Your task to perform on an android device: What's the weather going to be this weekend? Image 0: 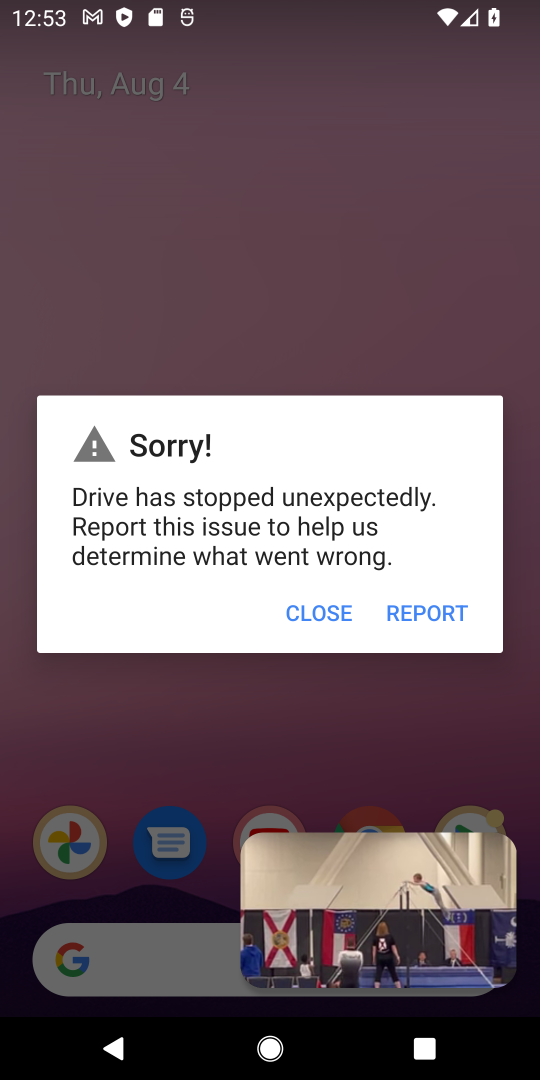
Step 0: press home button
Your task to perform on an android device: What's the weather going to be this weekend? Image 1: 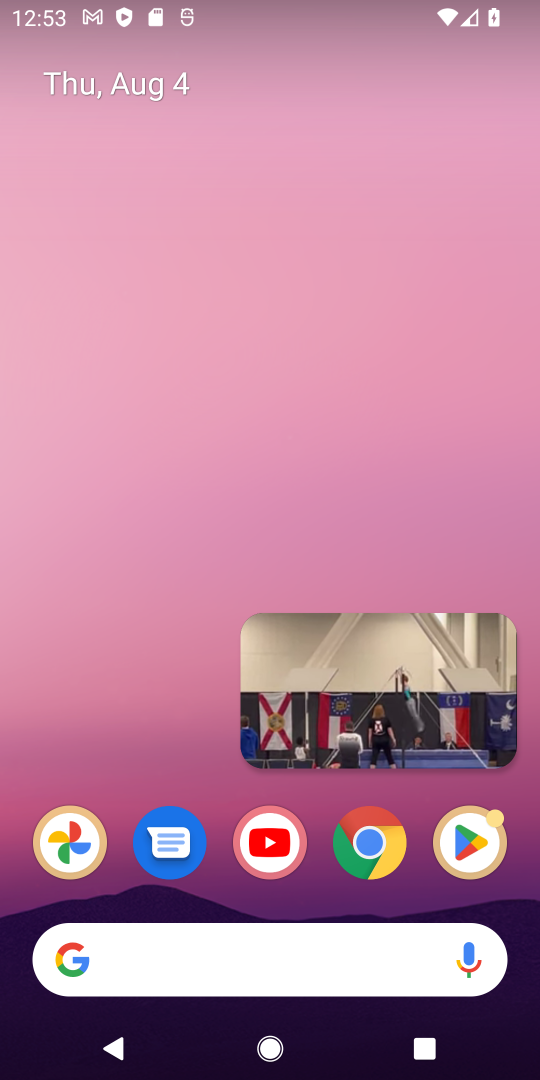
Step 1: drag from (146, 735) to (65, 108)
Your task to perform on an android device: What's the weather going to be this weekend? Image 2: 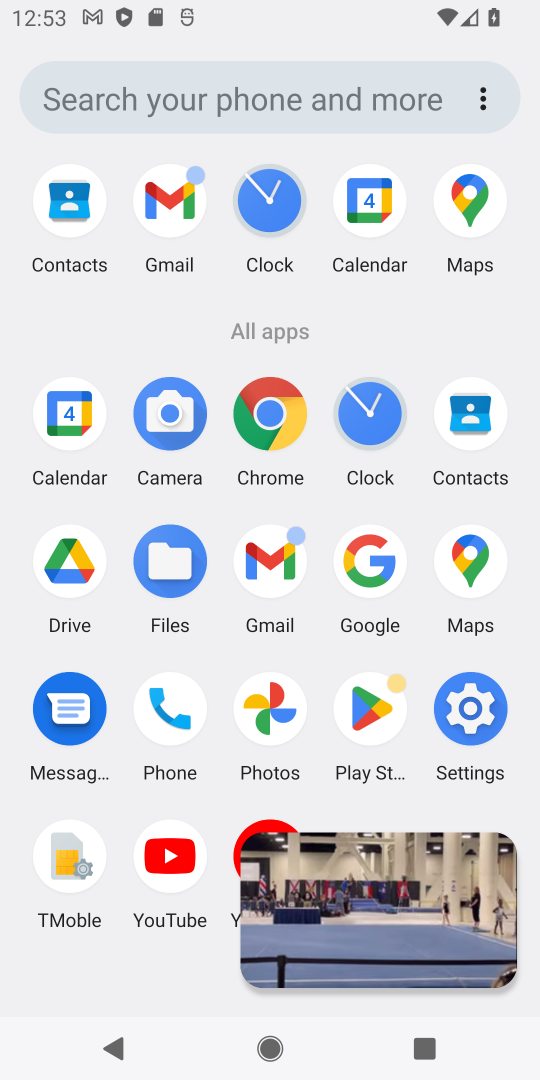
Step 2: click (373, 568)
Your task to perform on an android device: What's the weather going to be this weekend? Image 3: 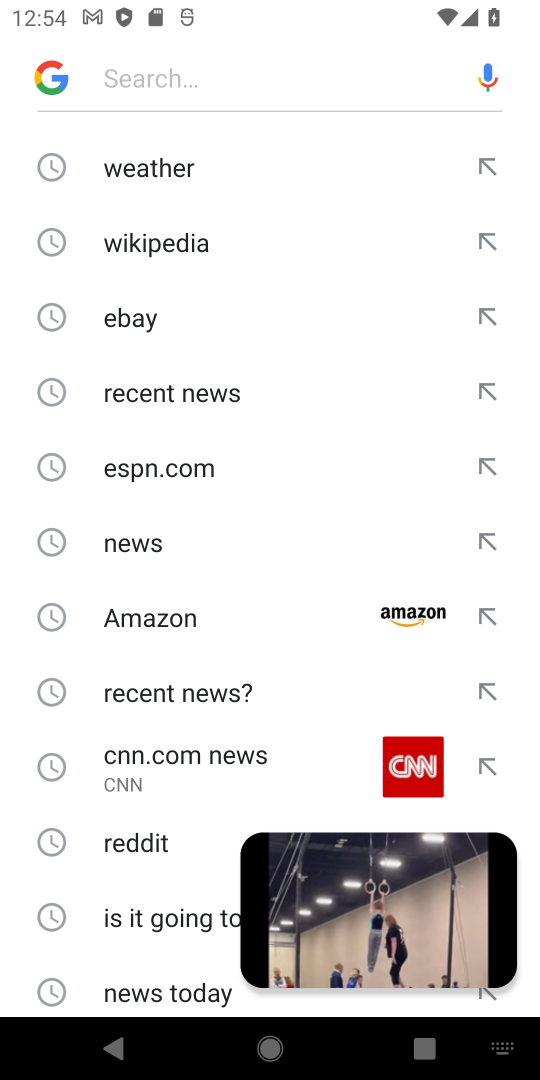
Step 3: type "what's the weather going to be this weekend"
Your task to perform on an android device: What's the weather going to be this weekend? Image 4: 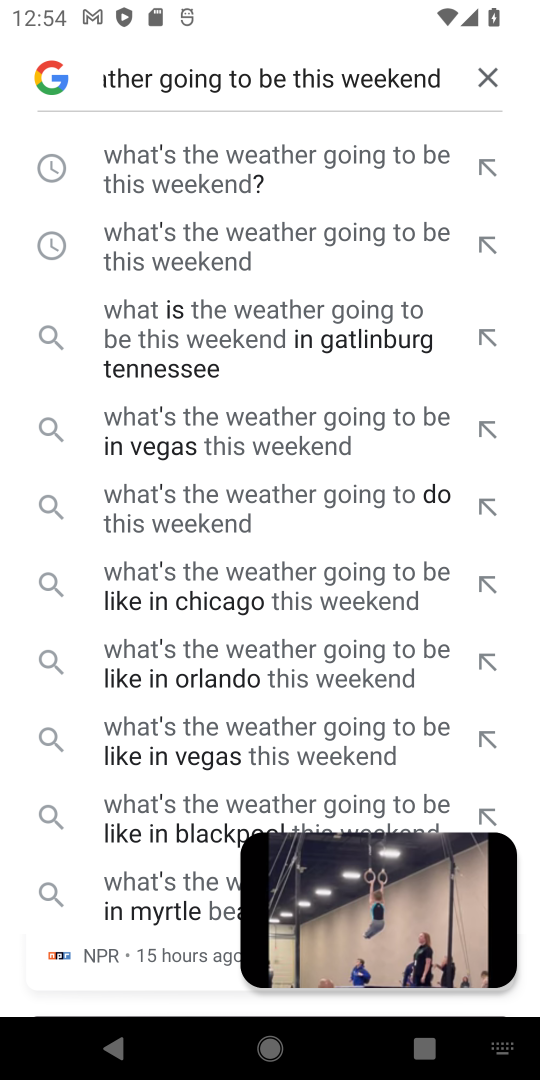
Step 4: click (267, 164)
Your task to perform on an android device: What's the weather going to be this weekend? Image 5: 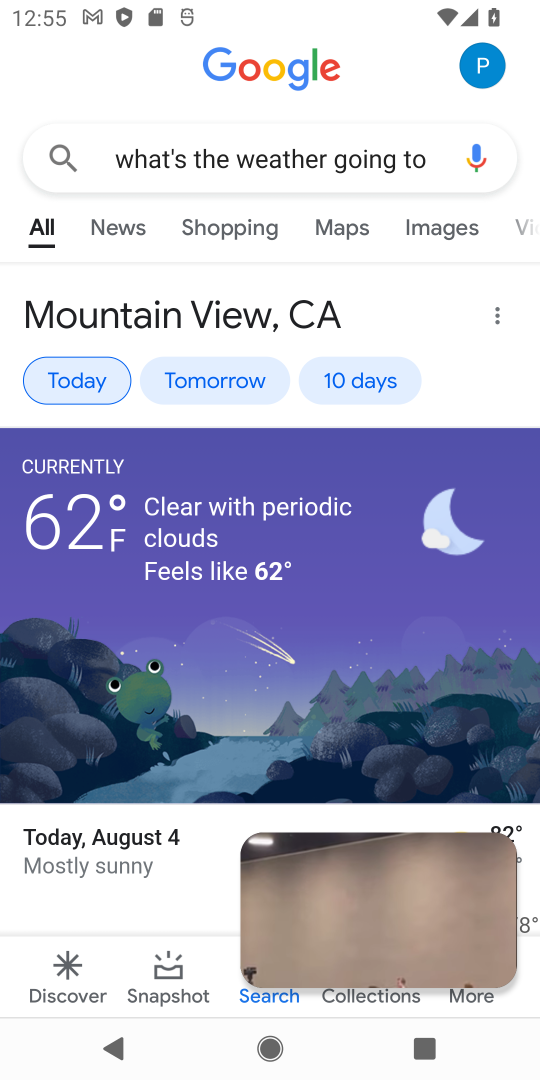
Step 5: click (375, 386)
Your task to perform on an android device: What's the weather going to be this weekend? Image 6: 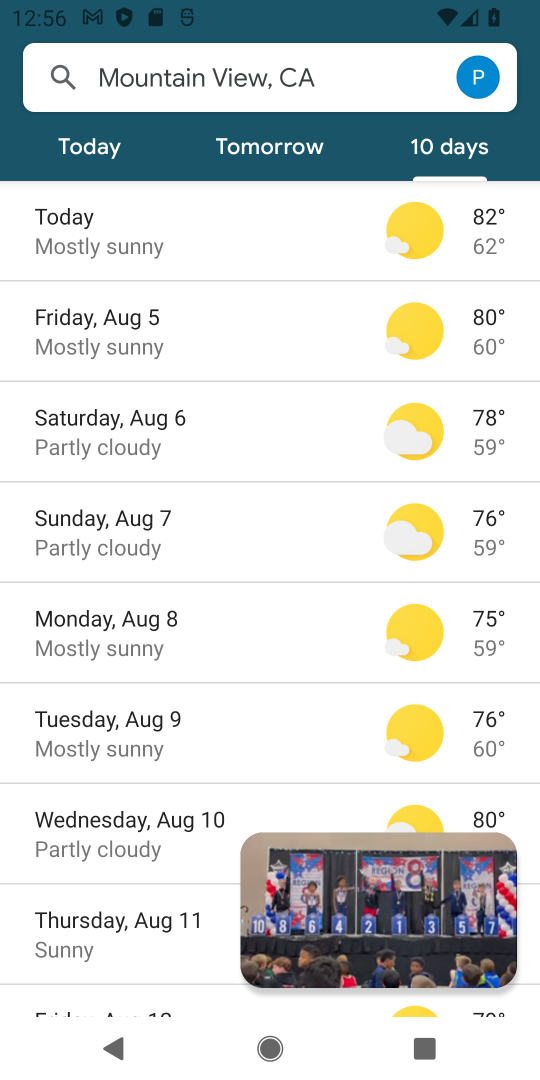
Step 6: task complete